Your task to perform on an android device: Set the phone to "Do not disturb". Image 0: 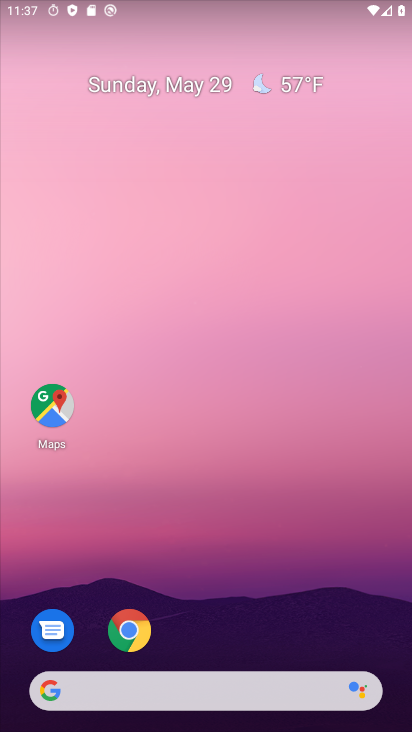
Step 0: drag from (302, 698) to (249, 146)
Your task to perform on an android device: Set the phone to "Do not disturb". Image 1: 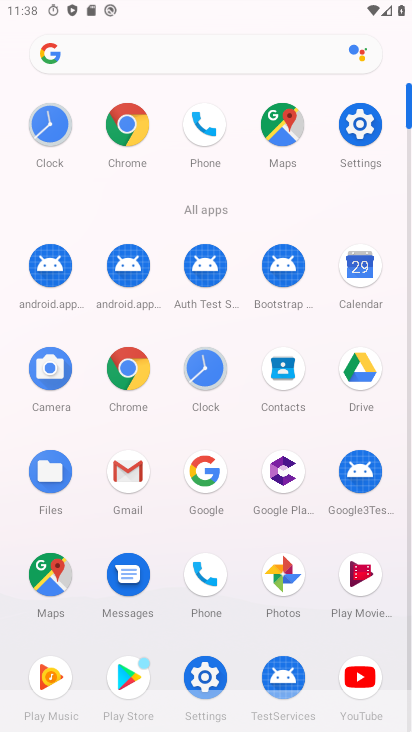
Step 1: click (358, 128)
Your task to perform on an android device: Set the phone to "Do not disturb". Image 2: 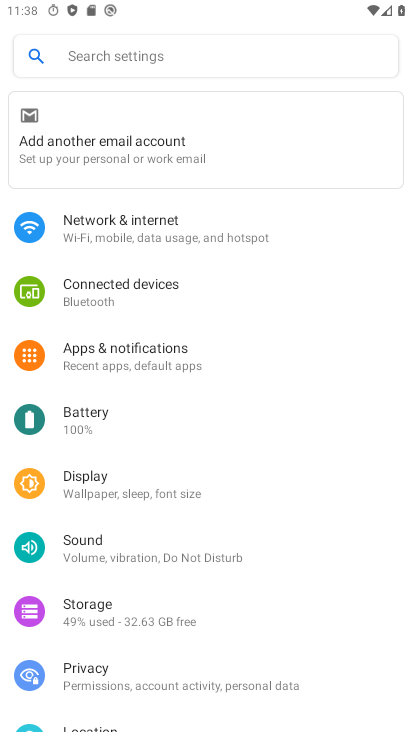
Step 2: click (159, 45)
Your task to perform on an android device: Set the phone to "Do not disturb". Image 3: 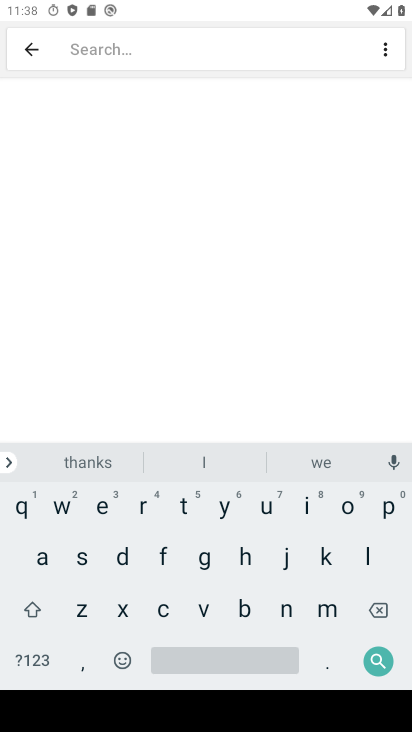
Step 3: click (123, 552)
Your task to perform on an android device: Set the phone to "Do not disturb". Image 4: 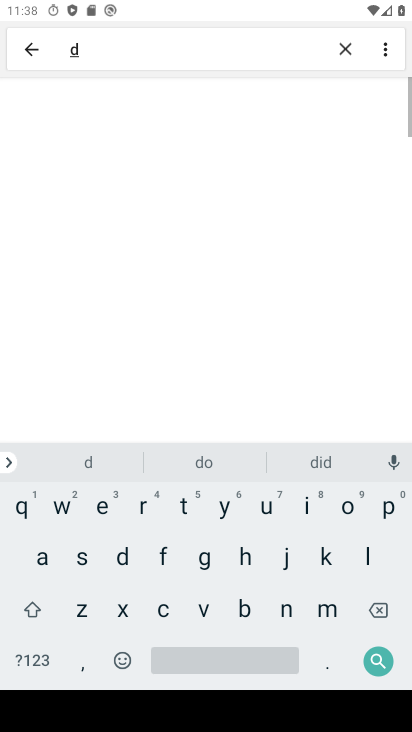
Step 4: click (284, 613)
Your task to perform on an android device: Set the phone to "Do not disturb". Image 5: 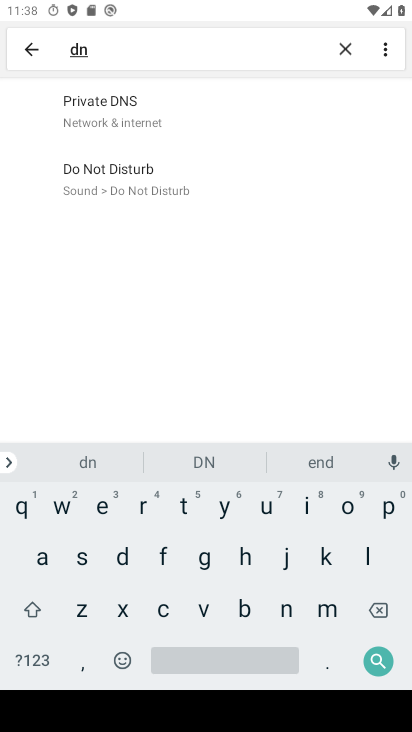
Step 5: click (121, 550)
Your task to perform on an android device: Set the phone to "Do not disturb". Image 6: 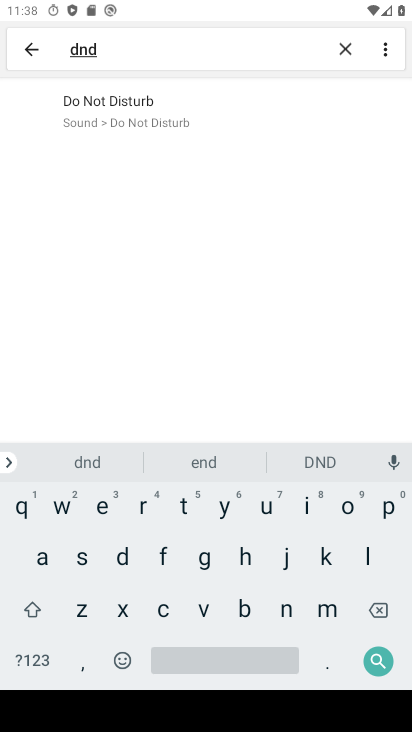
Step 6: click (190, 115)
Your task to perform on an android device: Set the phone to "Do not disturb". Image 7: 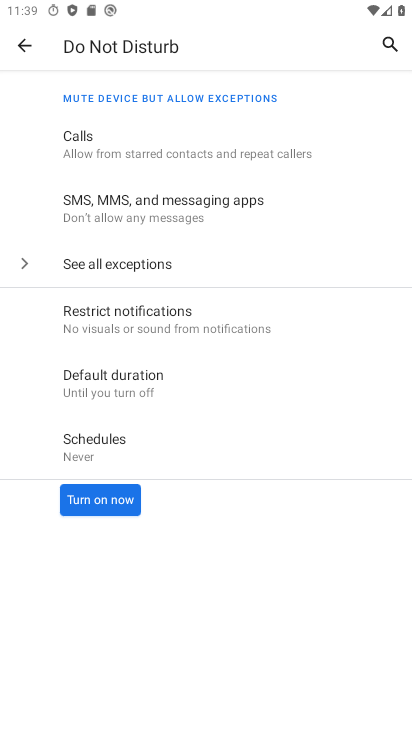
Step 7: click (111, 502)
Your task to perform on an android device: Set the phone to "Do not disturb". Image 8: 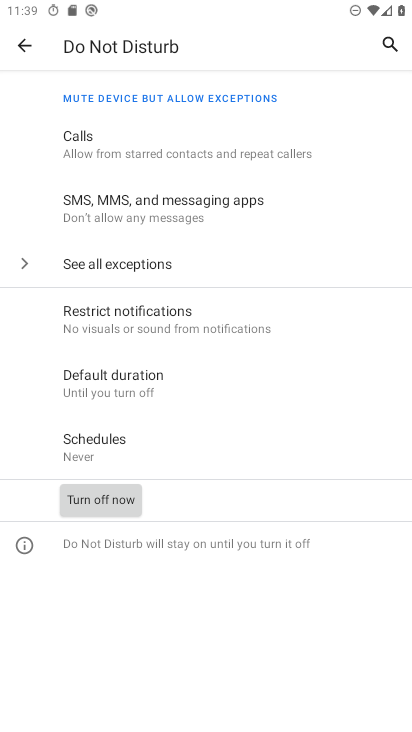
Step 8: task complete